Your task to perform on an android device: turn notification dots on Image 0: 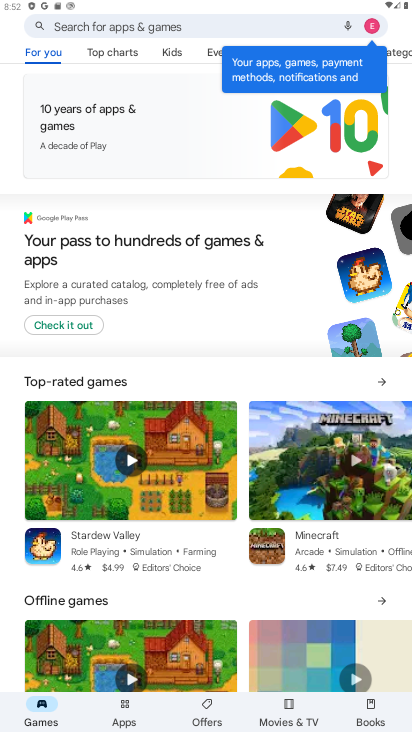
Step 0: press back button
Your task to perform on an android device: turn notification dots on Image 1: 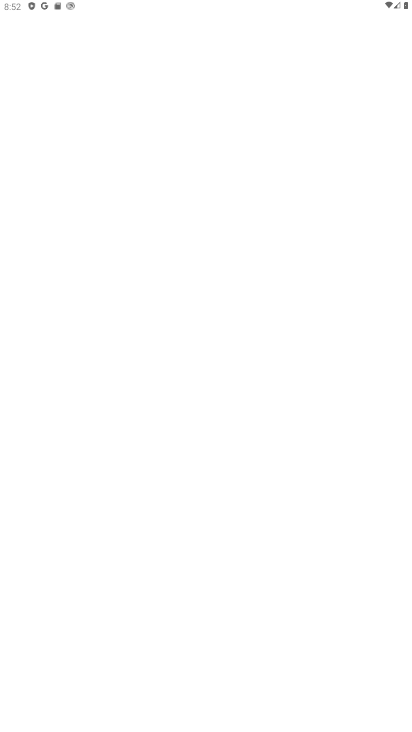
Step 1: press back button
Your task to perform on an android device: turn notification dots on Image 2: 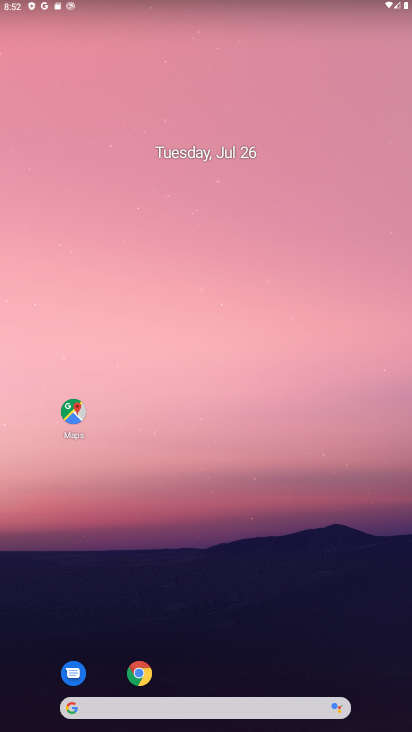
Step 2: drag from (217, 675) to (217, 114)
Your task to perform on an android device: turn notification dots on Image 3: 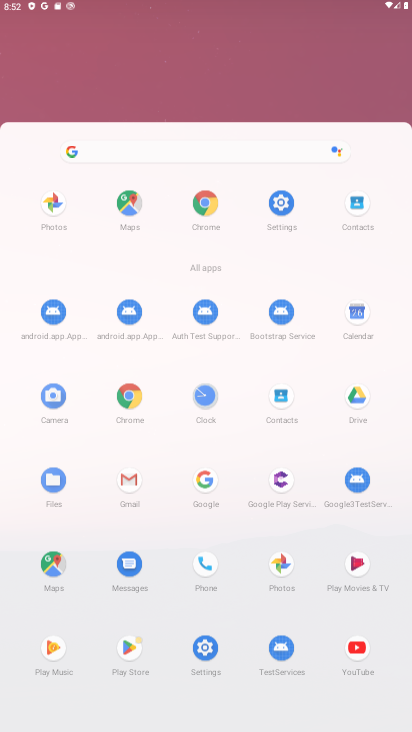
Step 3: drag from (248, 504) to (168, 27)
Your task to perform on an android device: turn notification dots on Image 4: 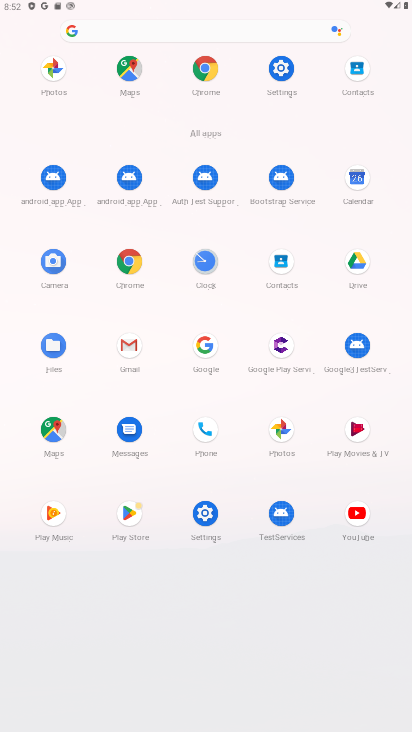
Step 4: drag from (209, 371) to (189, 72)
Your task to perform on an android device: turn notification dots on Image 5: 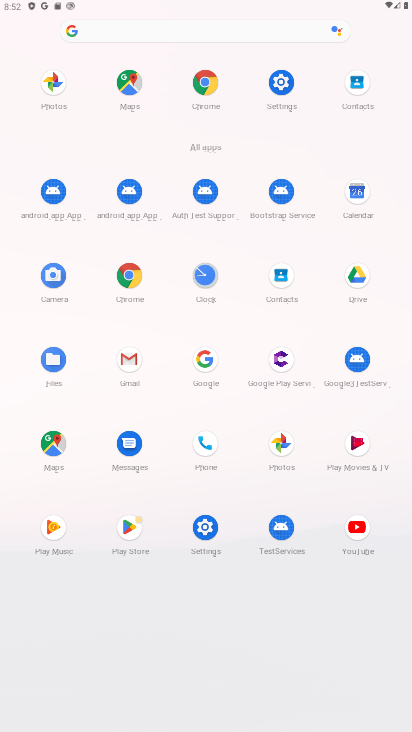
Step 5: click (214, 530)
Your task to perform on an android device: turn notification dots on Image 6: 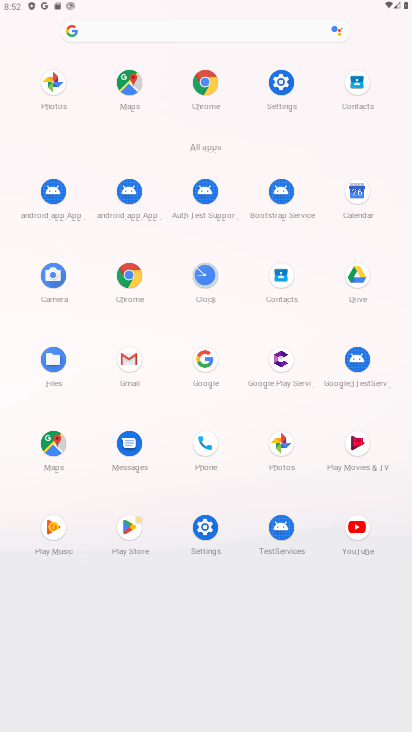
Step 6: click (214, 530)
Your task to perform on an android device: turn notification dots on Image 7: 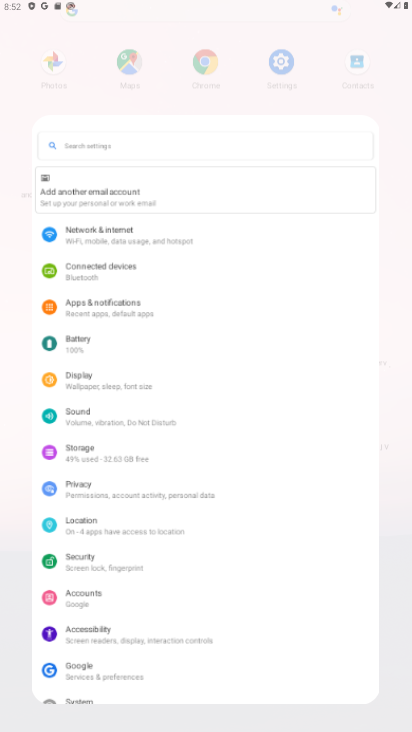
Step 7: click (214, 532)
Your task to perform on an android device: turn notification dots on Image 8: 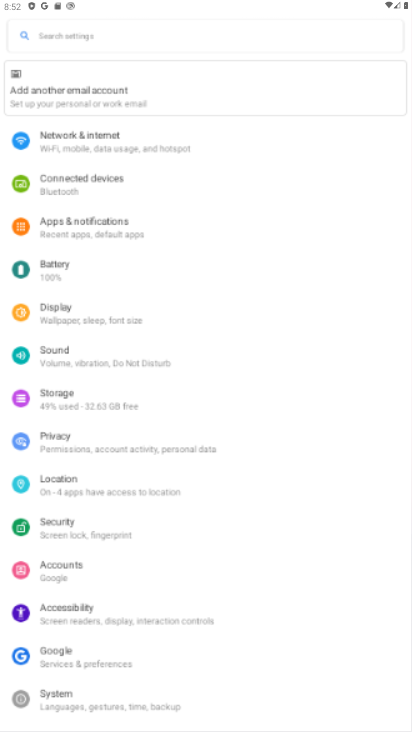
Step 8: click (215, 533)
Your task to perform on an android device: turn notification dots on Image 9: 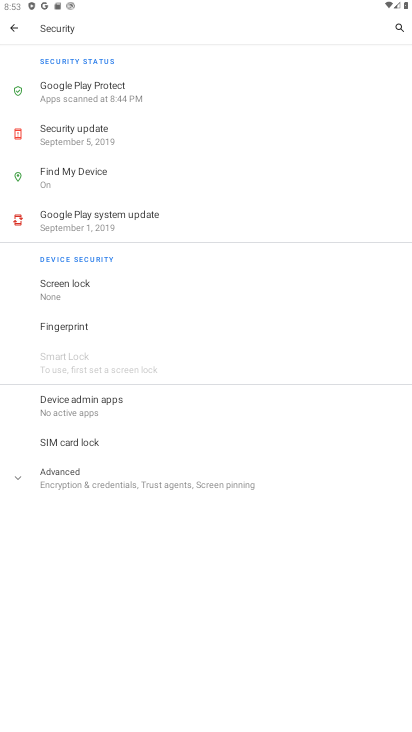
Step 9: click (17, 32)
Your task to perform on an android device: turn notification dots on Image 10: 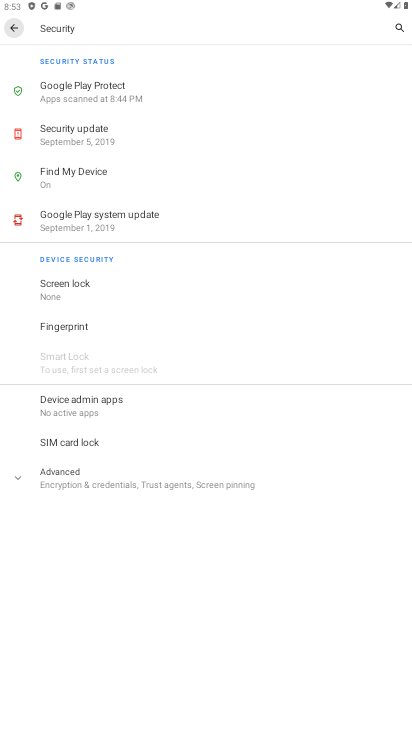
Step 10: click (17, 31)
Your task to perform on an android device: turn notification dots on Image 11: 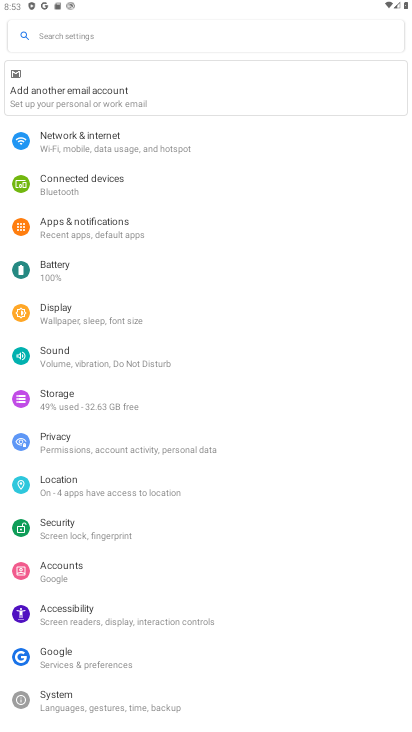
Step 11: click (79, 213)
Your task to perform on an android device: turn notification dots on Image 12: 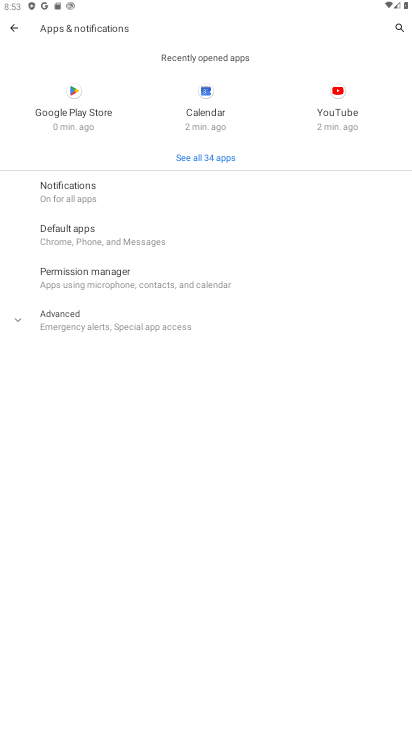
Step 12: click (71, 193)
Your task to perform on an android device: turn notification dots on Image 13: 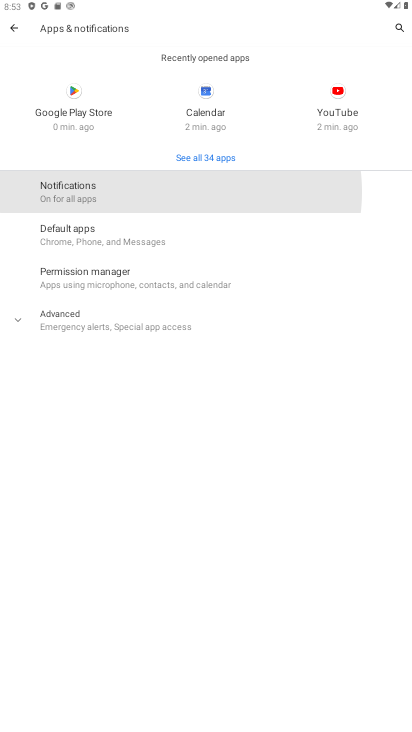
Step 13: click (66, 189)
Your task to perform on an android device: turn notification dots on Image 14: 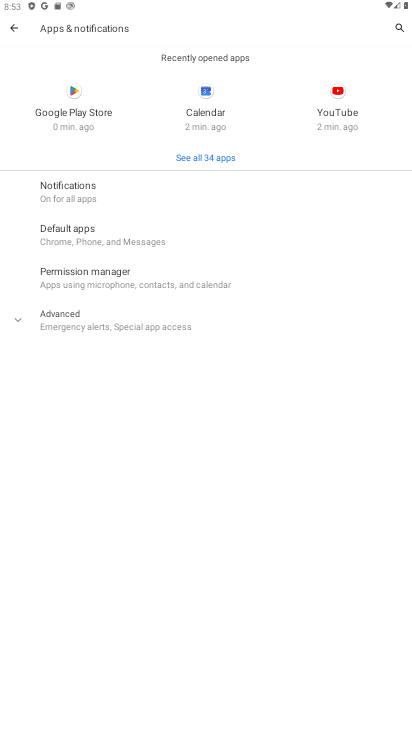
Step 14: click (64, 187)
Your task to perform on an android device: turn notification dots on Image 15: 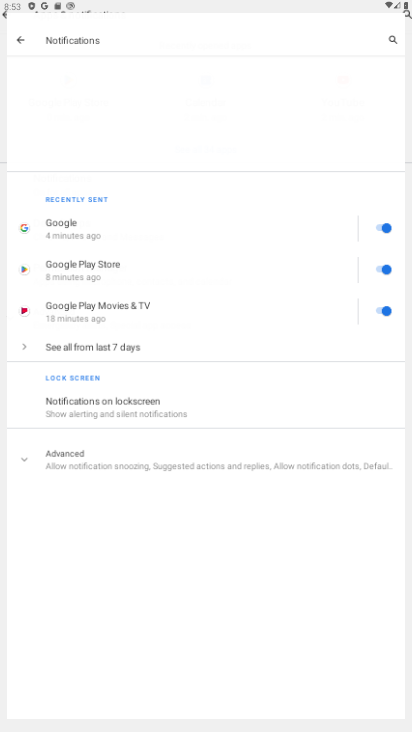
Step 15: click (64, 187)
Your task to perform on an android device: turn notification dots on Image 16: 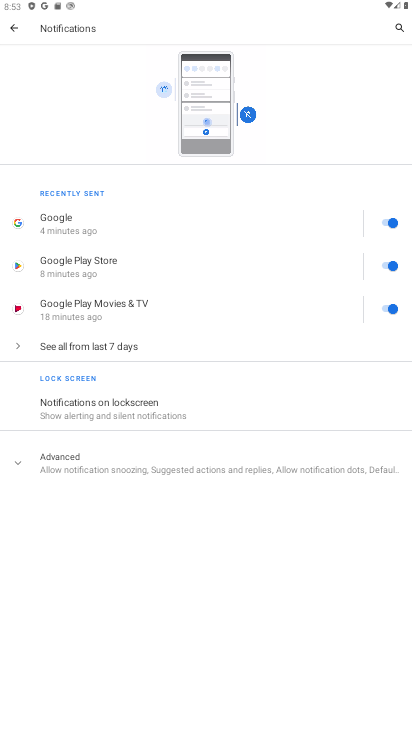
Step 16: click (96, 460)
Your task to perform on an android device: turn notification dots on Image 17: 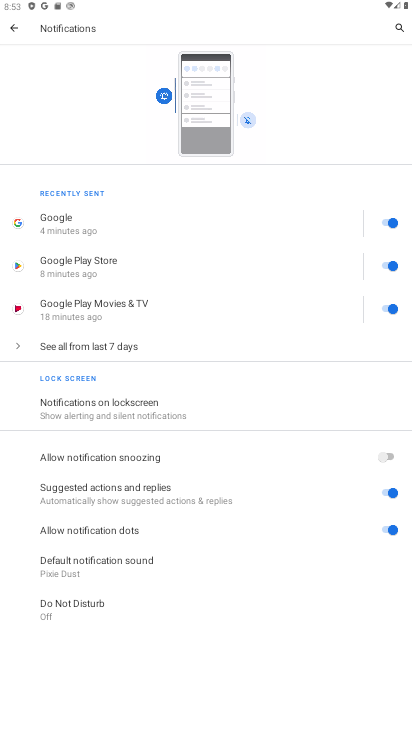
Step 17: click (390, 520)
Your task to perform on an android device: turn notification dots on Image 18: 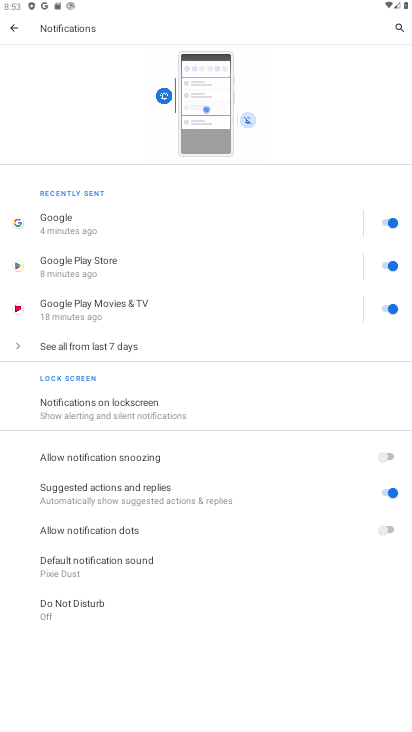
Step 18: click (391, 528)
Your task to perform on an android device: turn notification dots on Image 19: 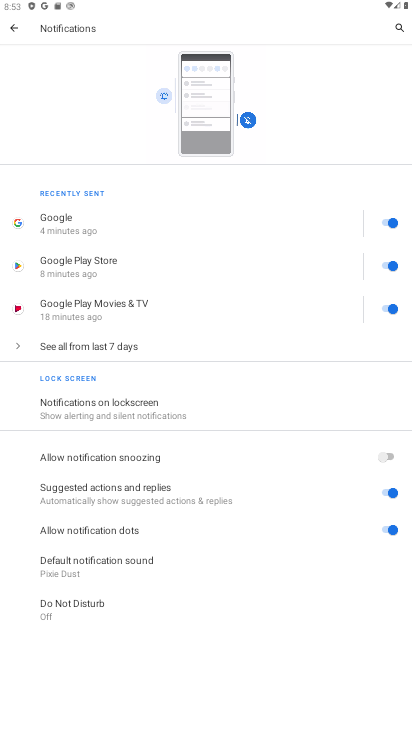
Step 19: task complete